Your task to perform on an android device: Search for the new nike air max shoes on Nike. Image 0: 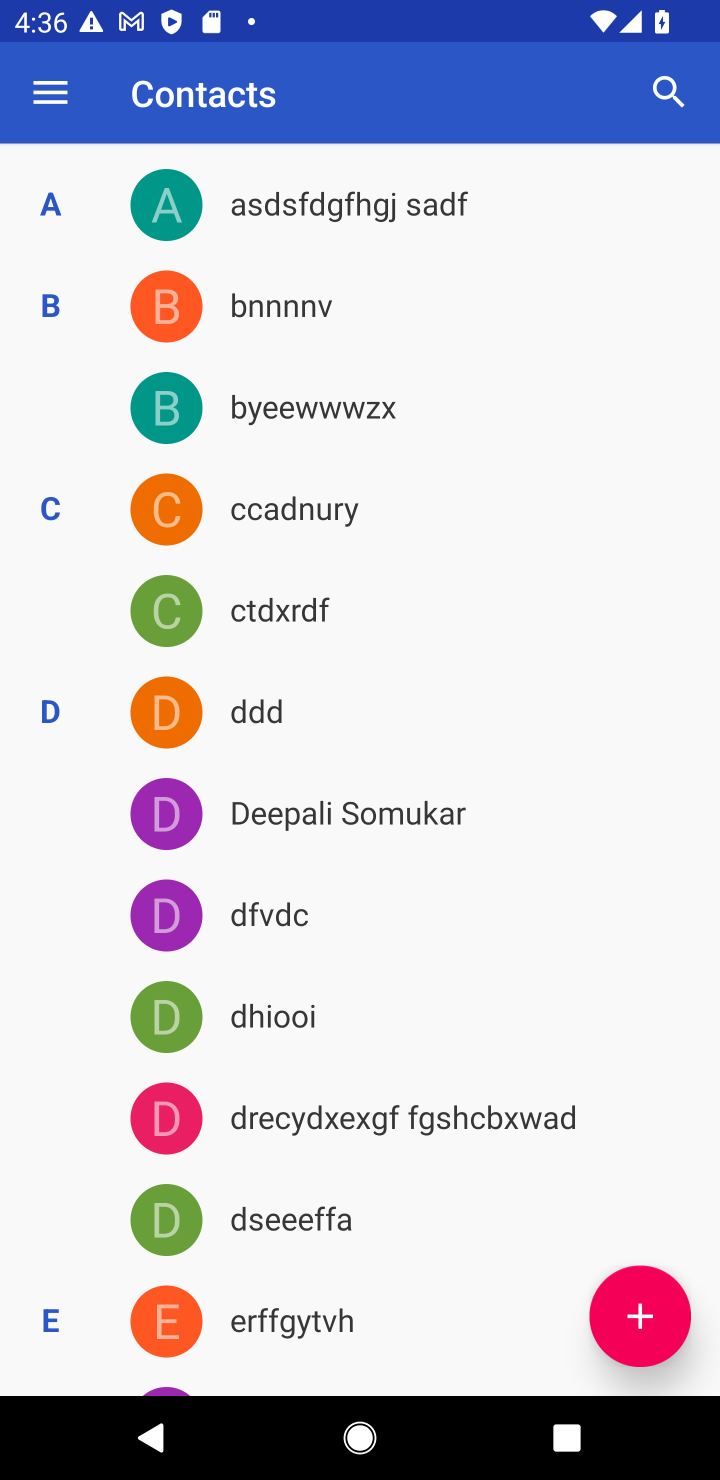
Step 0: press home button
Your task to perform on an android device: Search for the new nike air max shoes on Nike. Image 1: 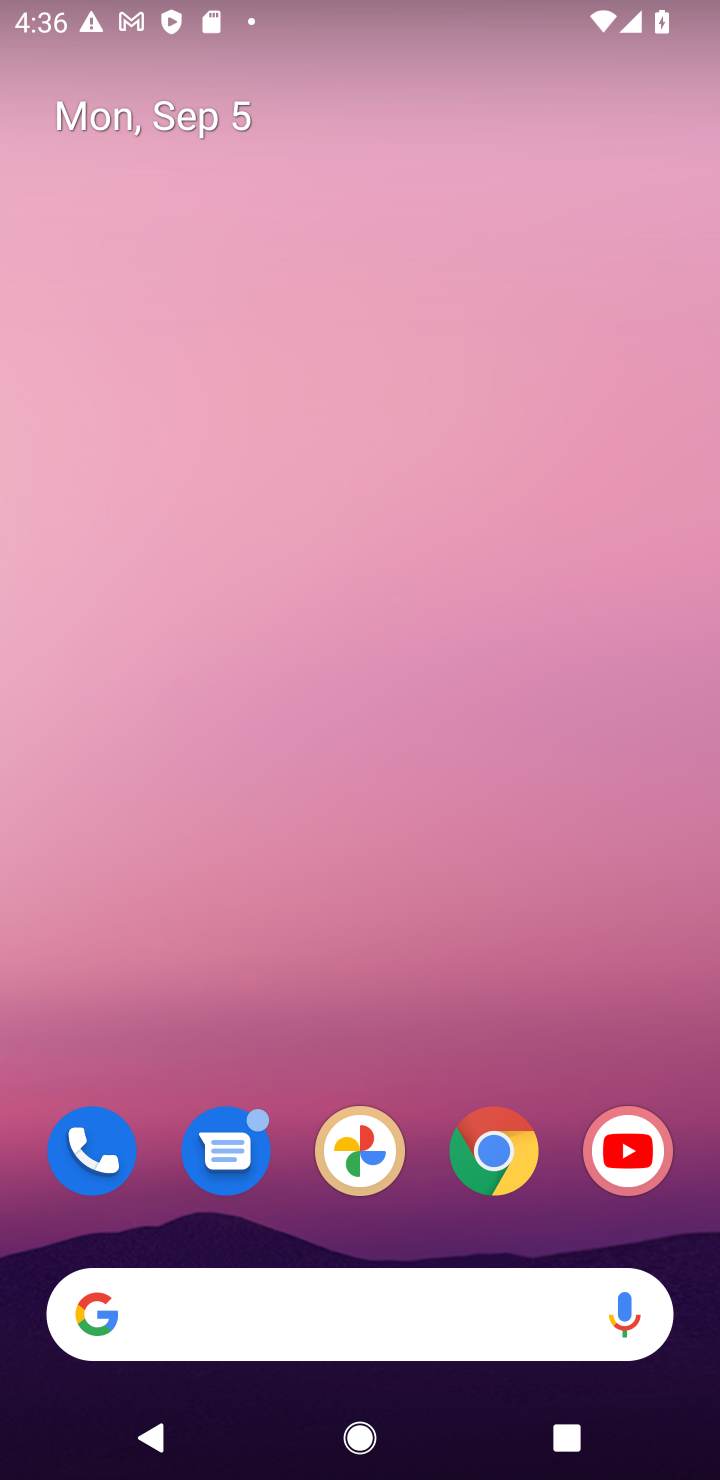
Step 1: click (513, 1164)
Your task to perform on an android device: Search for the new nike air max shoes on Nike. Image 2: 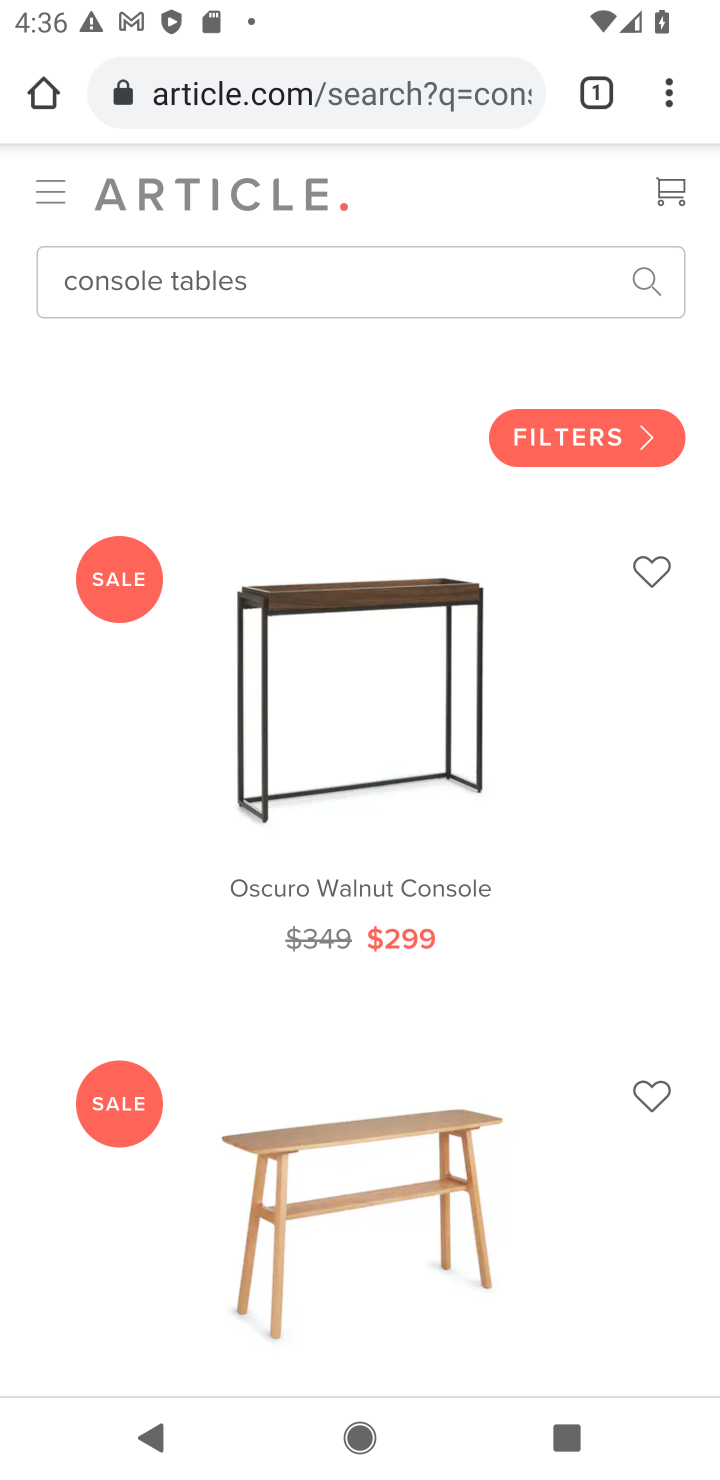
Step 2: click (457, 85)
Your task to perform on an android device: Search for the new nike air max shoes on Nike. Image 3: 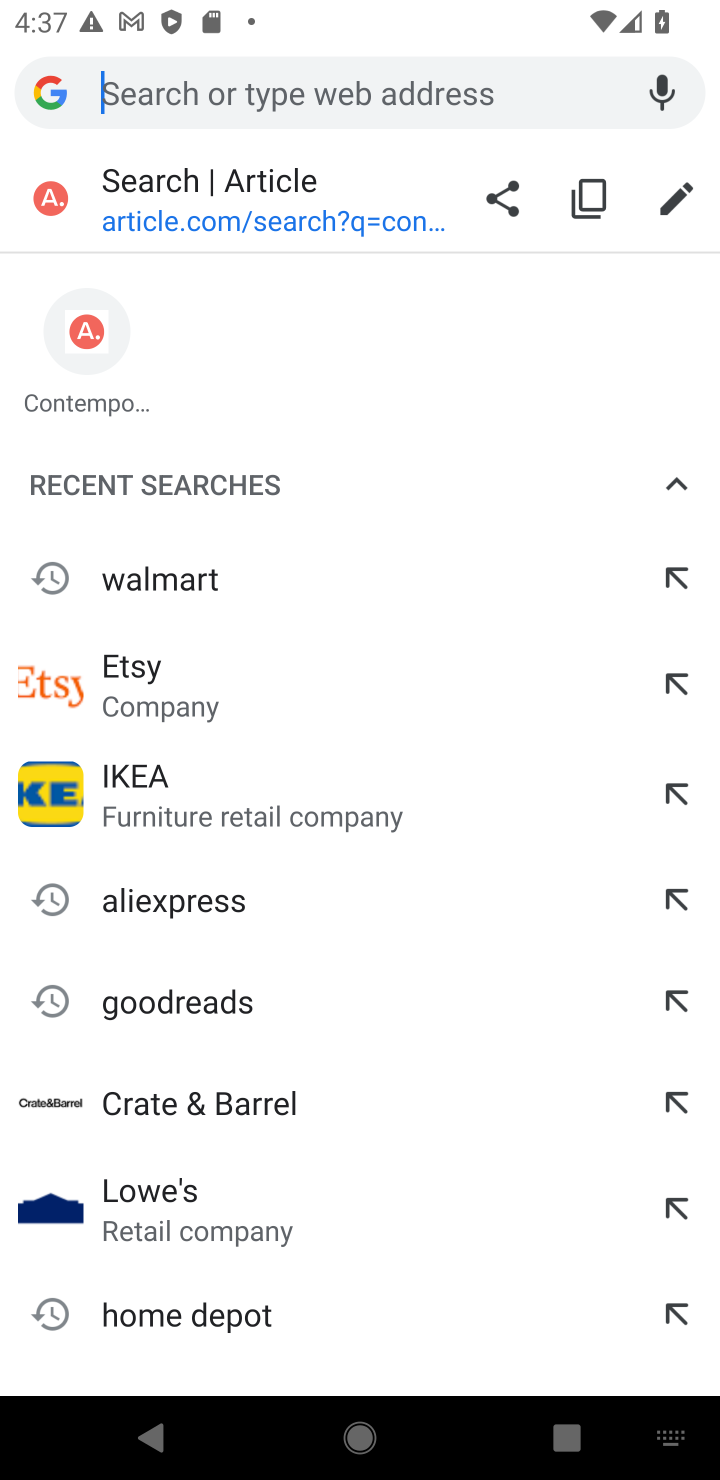
Step 3: type "nike.com"
Your task to perform on an android device: Search for the new nike air max shoes on Nike. Image 4: 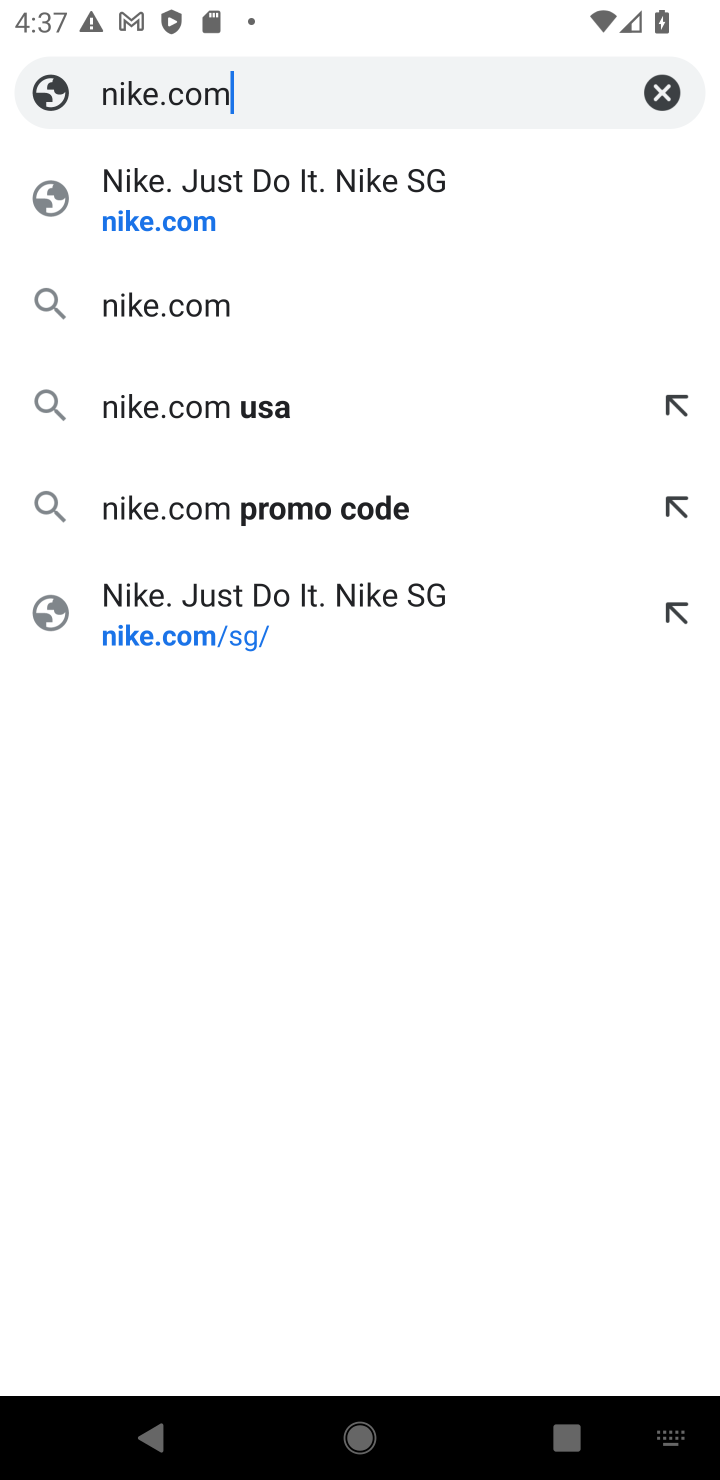
Step 4: click (334, 179)
Your task to perform on an android device: Search for the new nike air max shoes on Nike. Image 5: 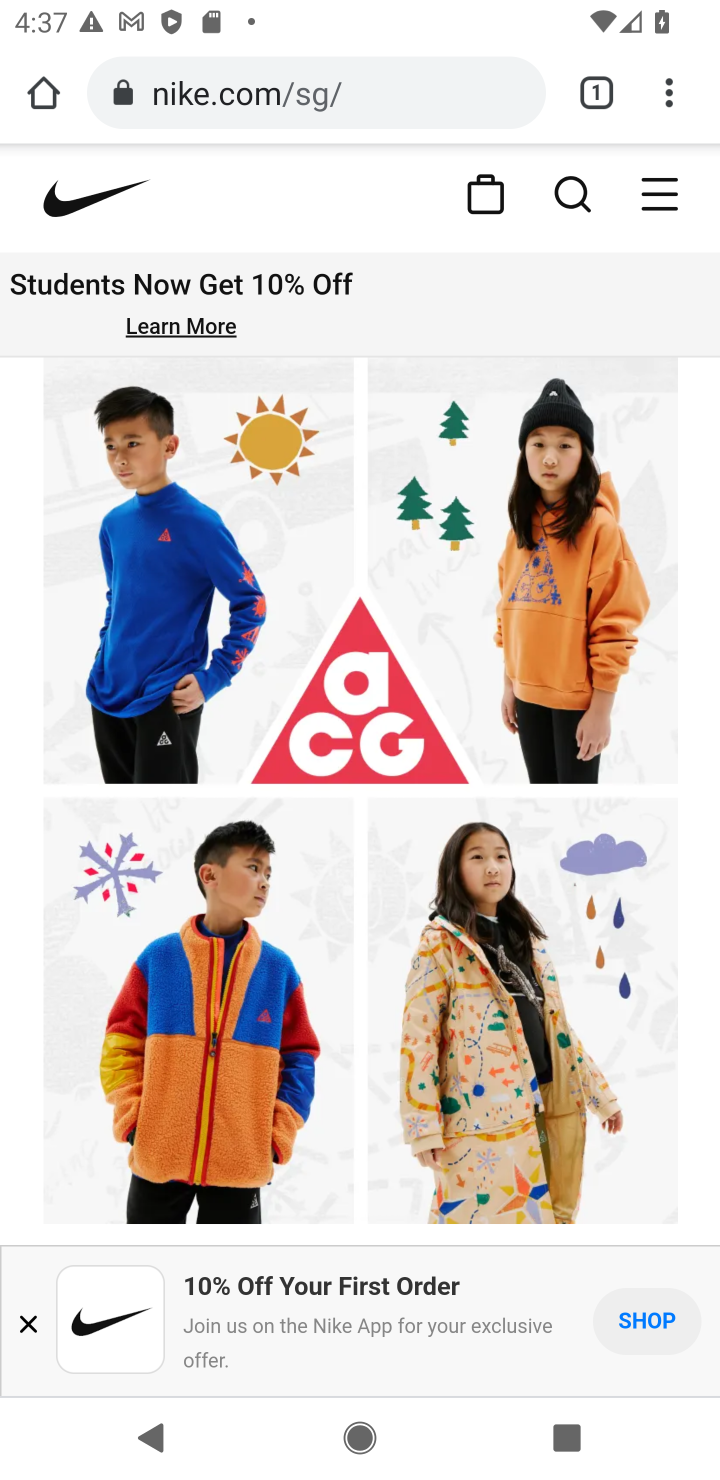
Step 5: click (566, 186)
Your task to perform on an android device: Search for the new nike air max shoes on Nike. Image 6: 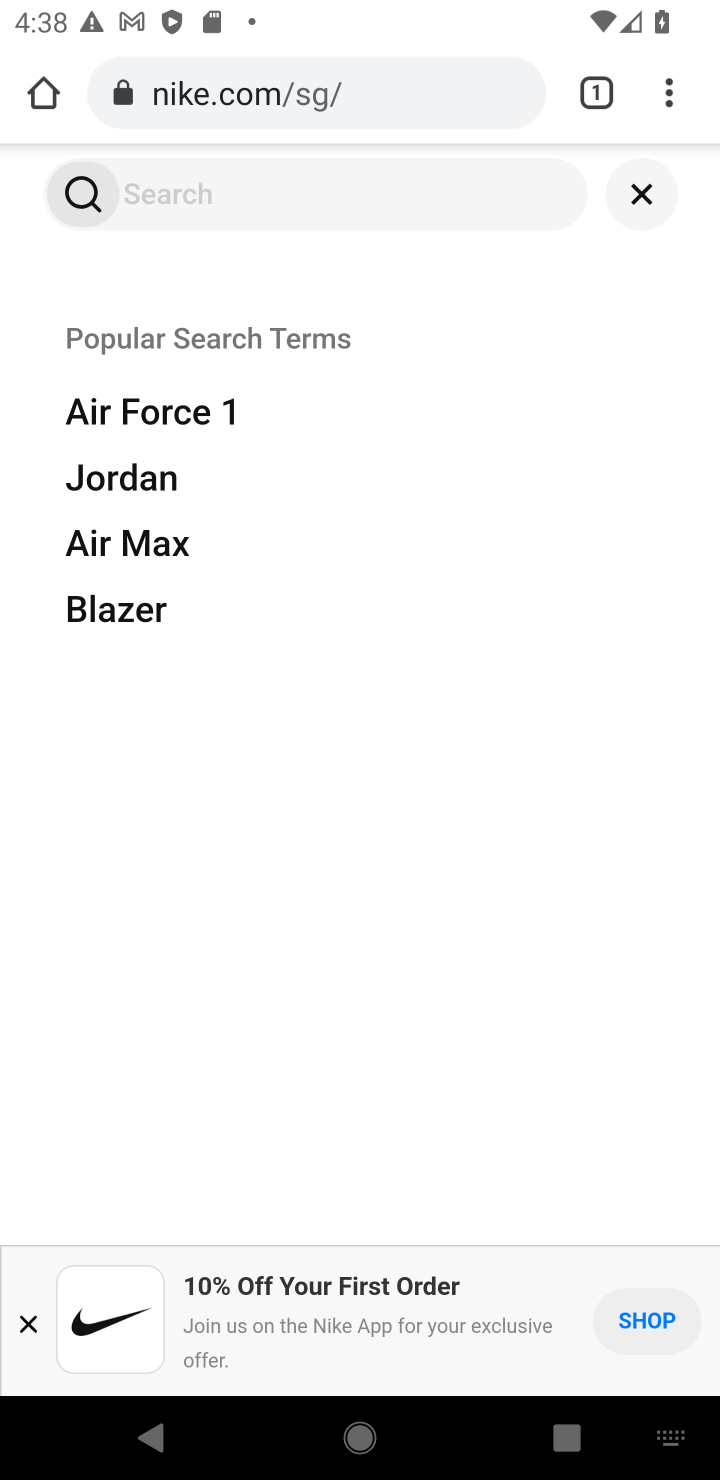
Step 6: type "new nike air max shoes"
Your task to perform on an android device: Search for the new nike air max shoes on Nike. Image 7: 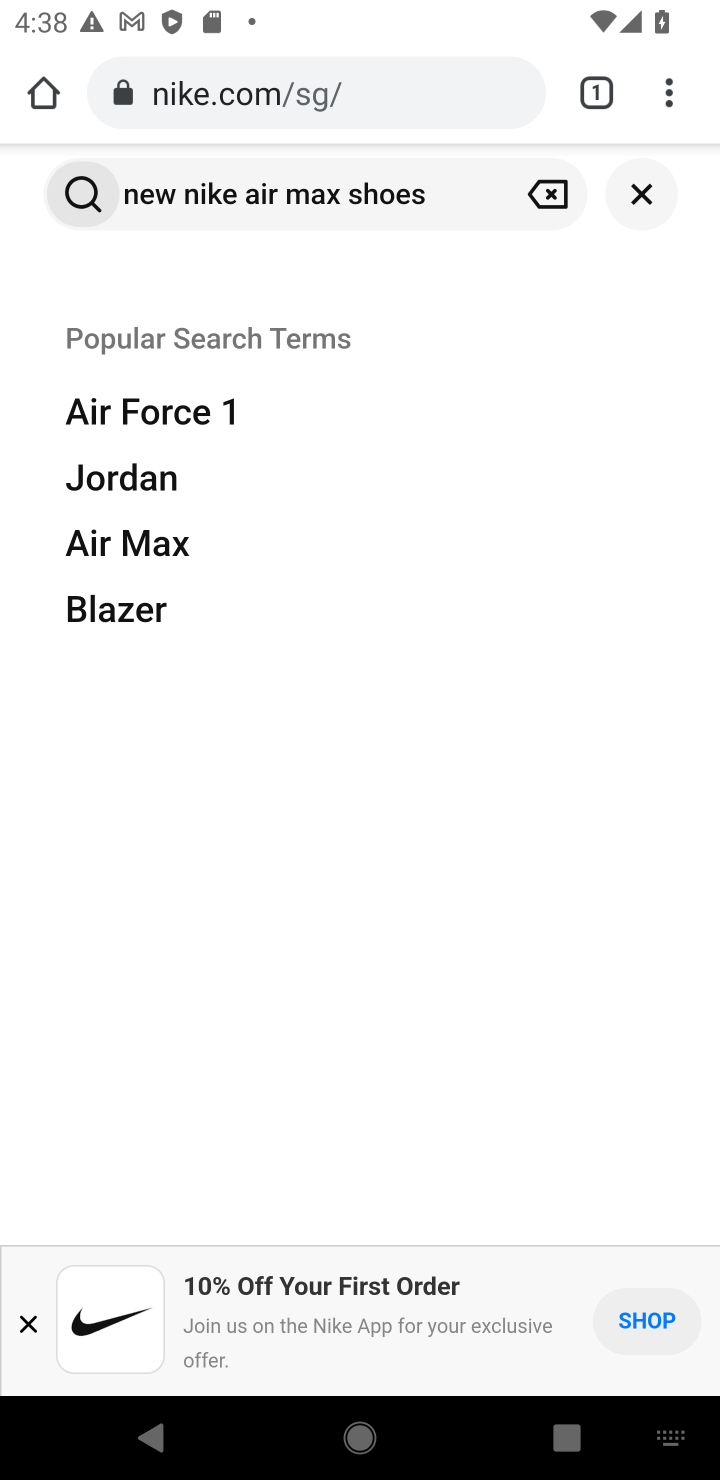
Step 7: click (67, 200)
Your task to perform on an android device: Search for the new nike air max shoes on Nike. Image 8: 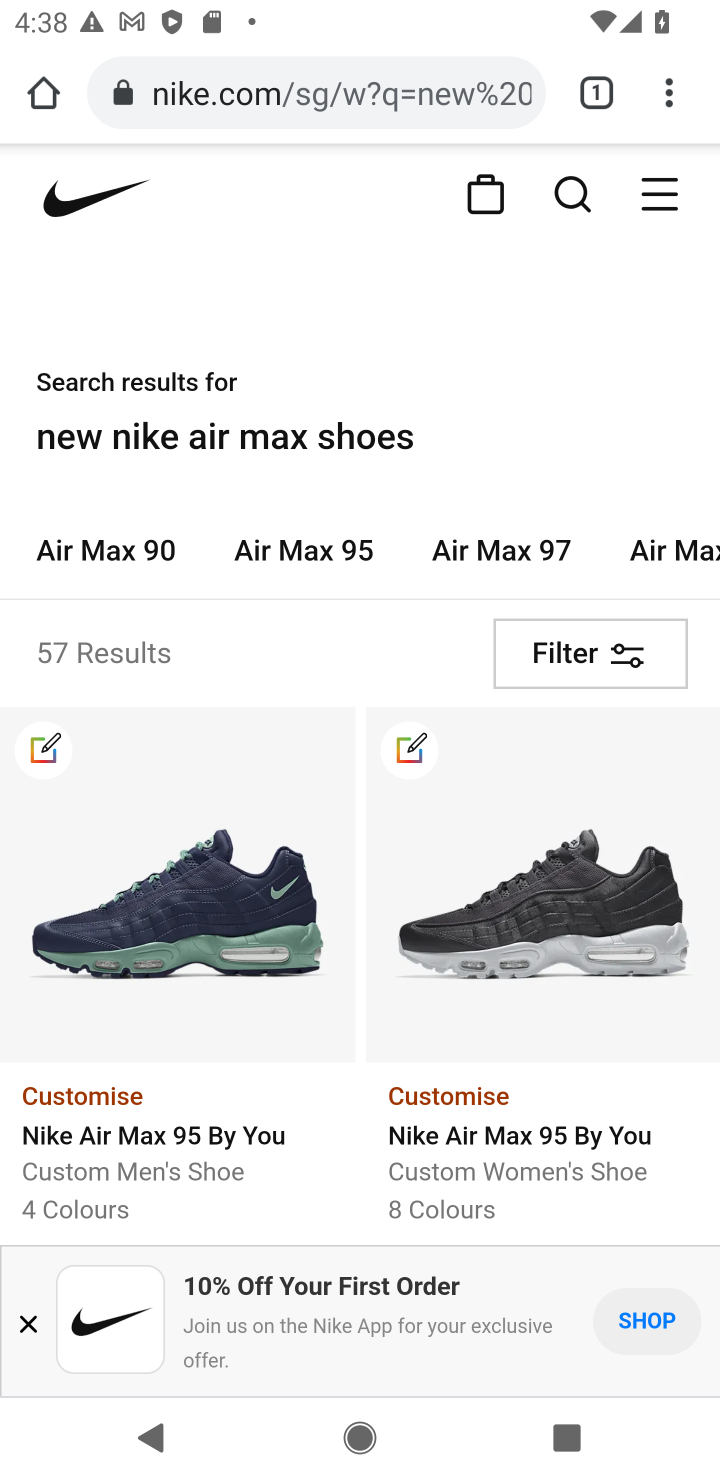
Step 8: task complete